Your task to perform on an android device: check storage Image 0: 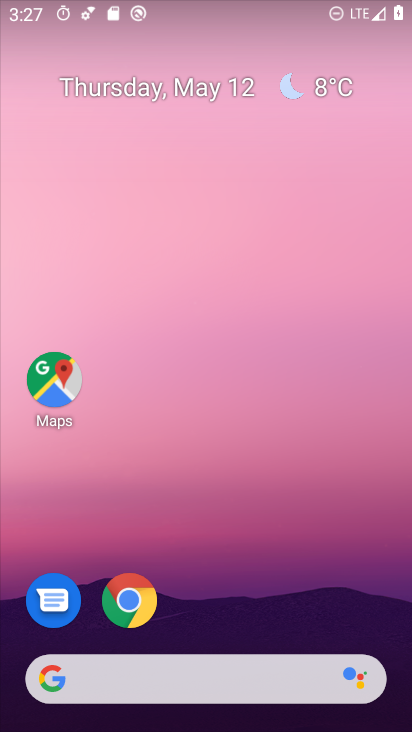
Step 0: drag from (208, 702) to (208, 157)
Your task to perform on an android device: check storage Image 1: 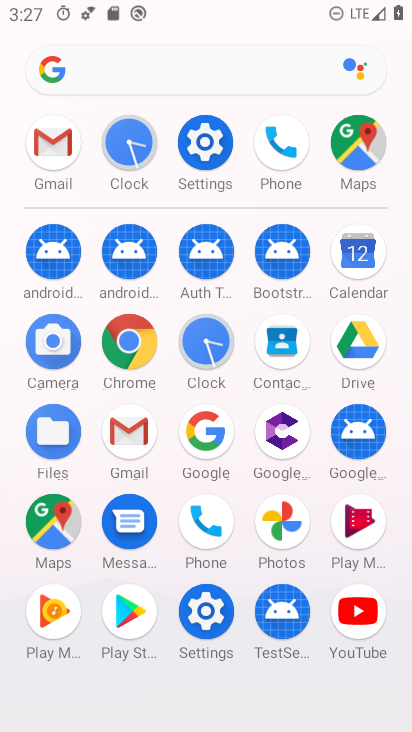
Step 1: click (210, 143)
Your task to perform on an android device: check storage Image 2: 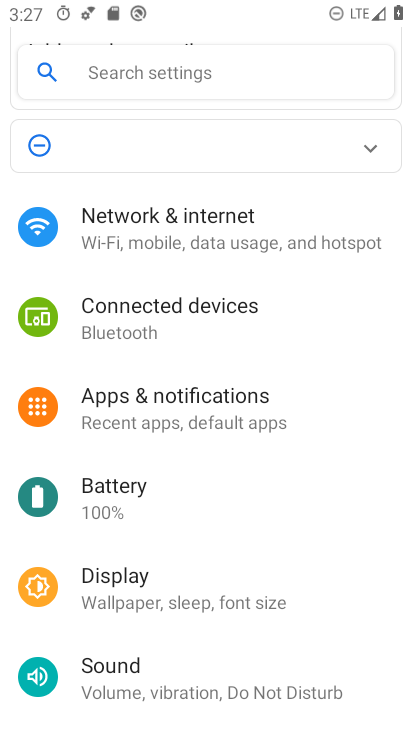
Step 2: drag from (201, 662) to (201, 313)
Your task to perform on an android device: check storage Image 3: 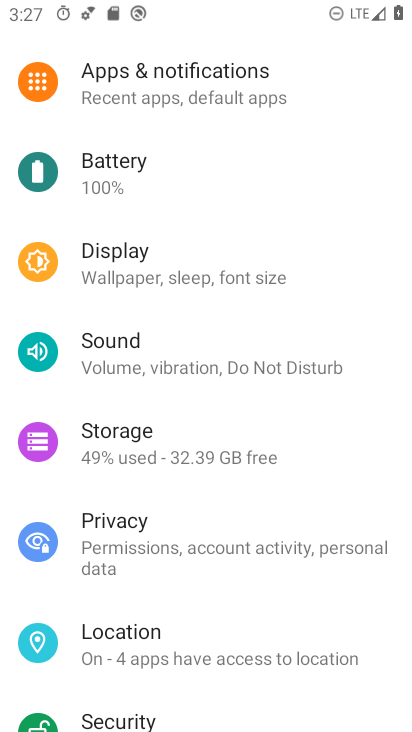
Step 3: click (131, 448)
Your task to perform on an android device: check storage Image 4: 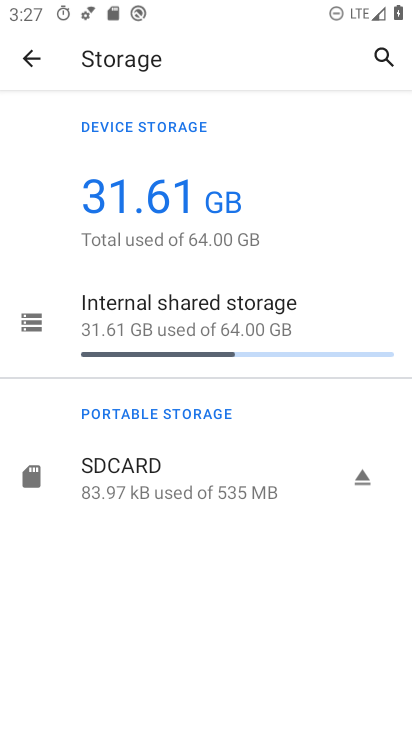
Step 4: task complete